Your task to perform on an android device: set an alarm Image 0: 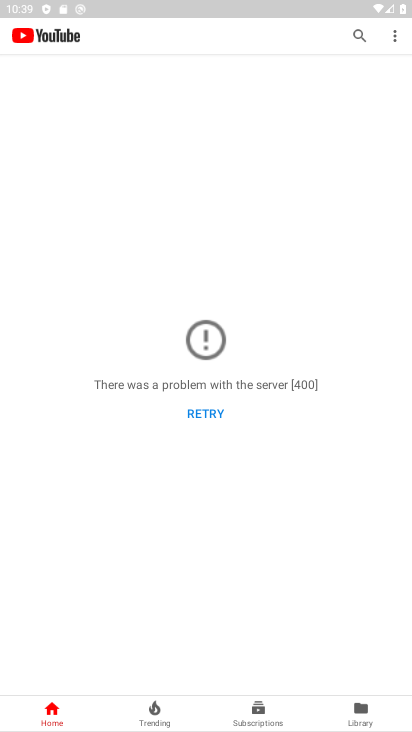
Step 0: press home button
Your task to perform on an android device: set an alarm Image 1: 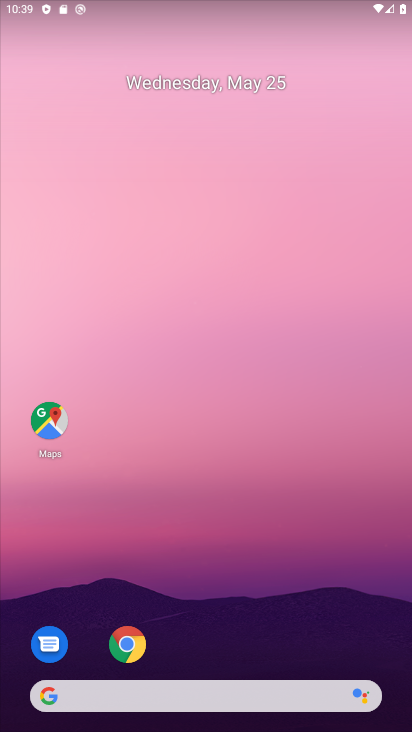
Step 1: drag from (186, 663) to (300, 107)
Your task to perform on an android device: set an alarm Image 2: 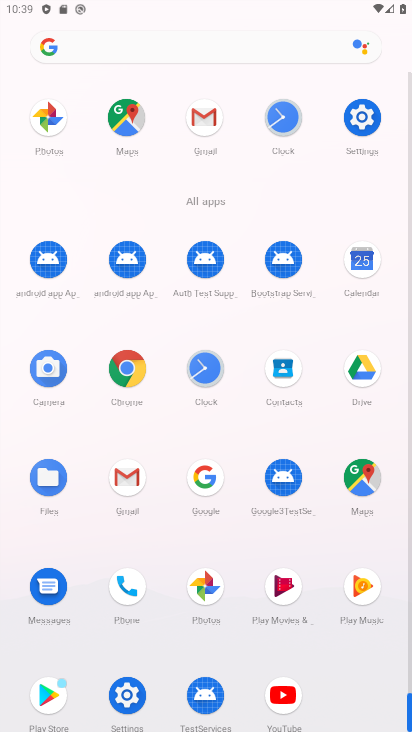
Step 2: click (206, 369)
Your task to perform on an android device: set an alarm Image 3: 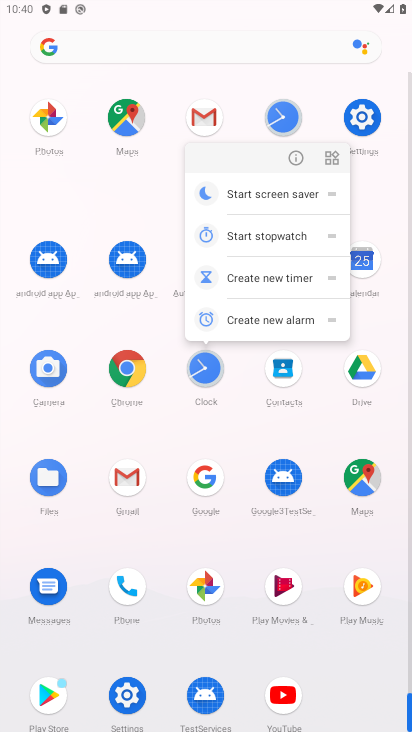
Step 3: click (204, 373)
Your task to perform on an android device: set an alarm Image 4: 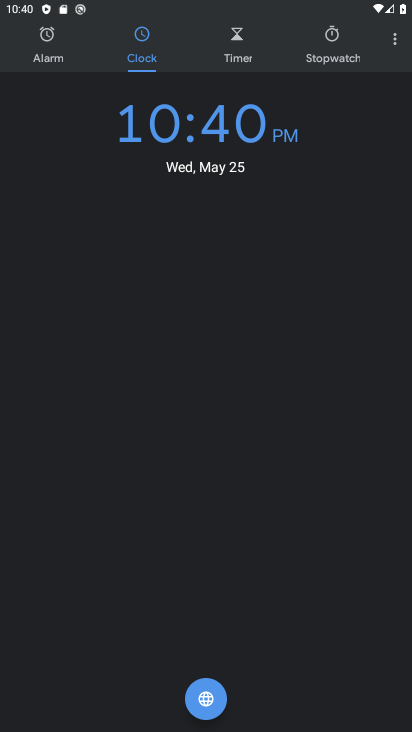
Step 4: click (68, 50)
Your task to perform on an android device: set an alarm Image 5: 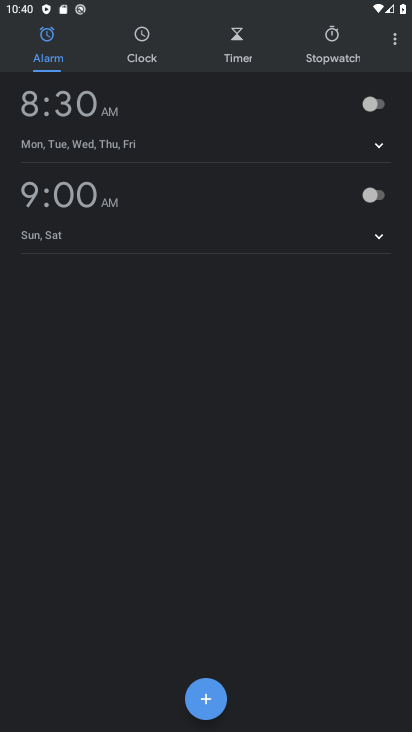
Step 5: click (380, 114)
Your task to perform on an android device: set an alarm Image 6: 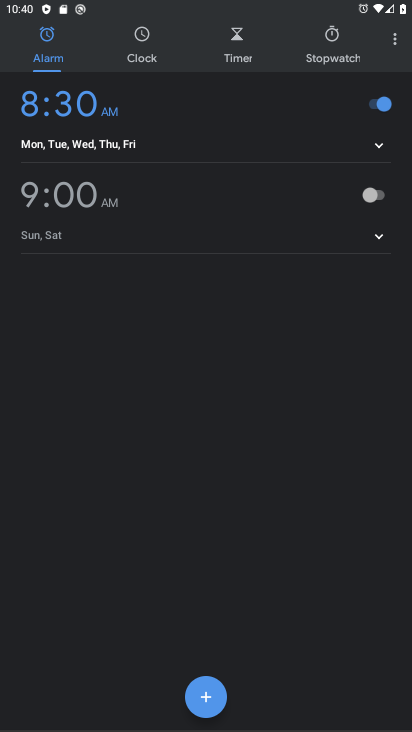
Step 6: task complete